Your task to perform on an android device: turn pop-ups on in chrome Image 0: 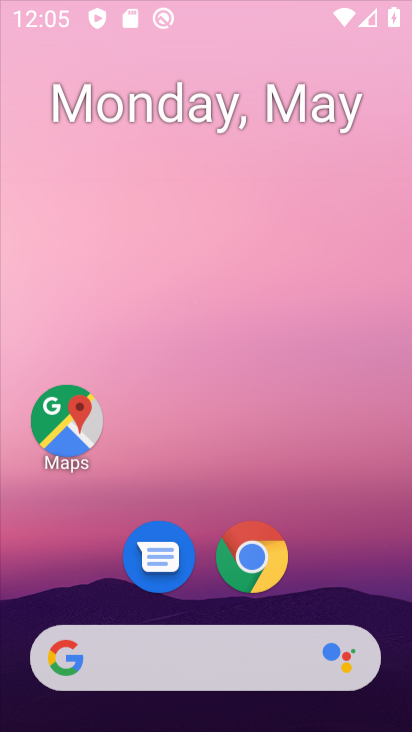
Step 0: drag from (322, 545) to (241, 42)
Your task to perform on an android device: turn pop-ups on in chrome Image 1: 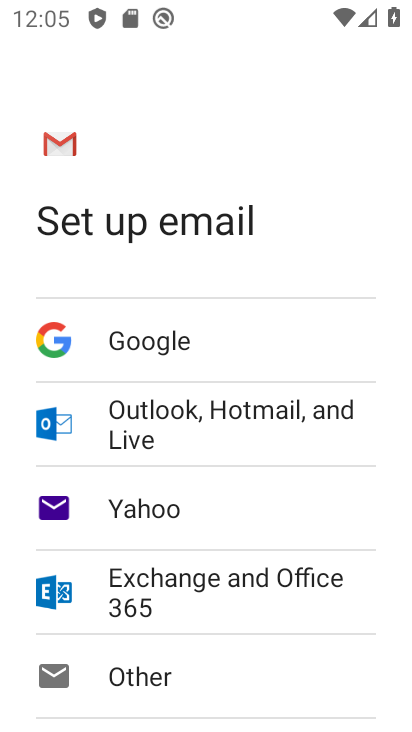
Step 1: press back button
Your task to perform on an android device: turn pop-ups on in chrome Image 2: 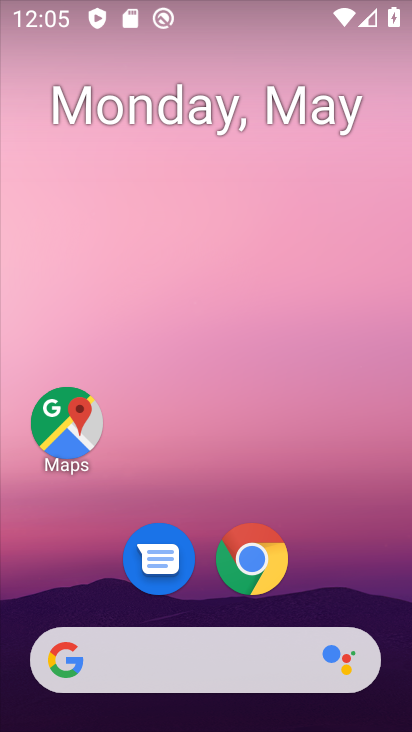
Step 2: drag from (309, 561) to (257, 28)
Your task to perform on an android device: turn pop-ups on in chrome Image 3: 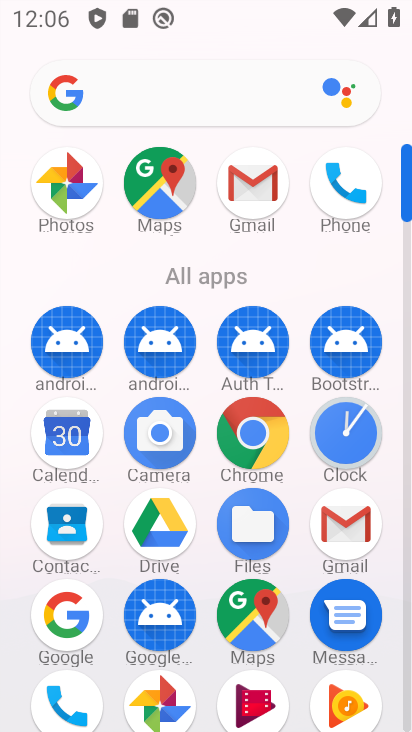
Step 3: click (249, 433)
Your task to perform on an android device: turn pop-ups on in chrome Image 4: 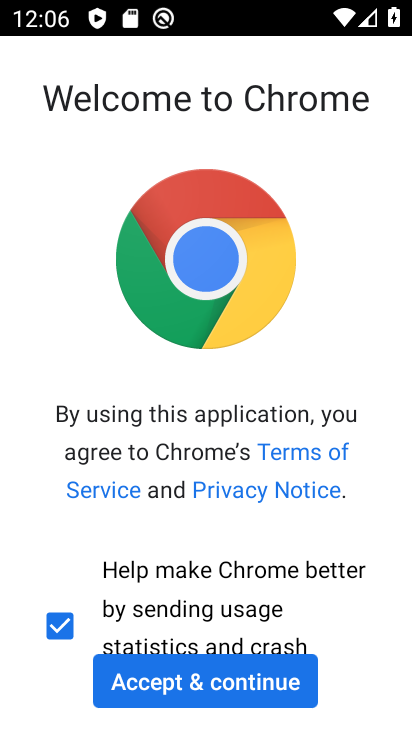
Step 4: click (237, 690)
Your task to perform on an android device: turn pop-ups on in chrome Image 5: 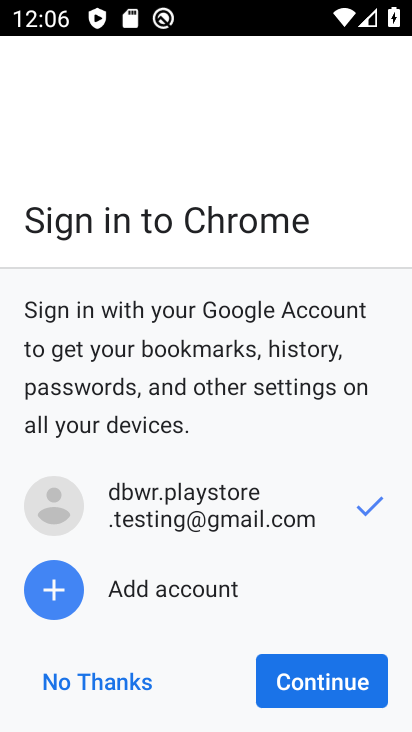
Step 5: click (304, 699)
Your task to perform on an android device: turn pop-ups on in chrome Image 6: 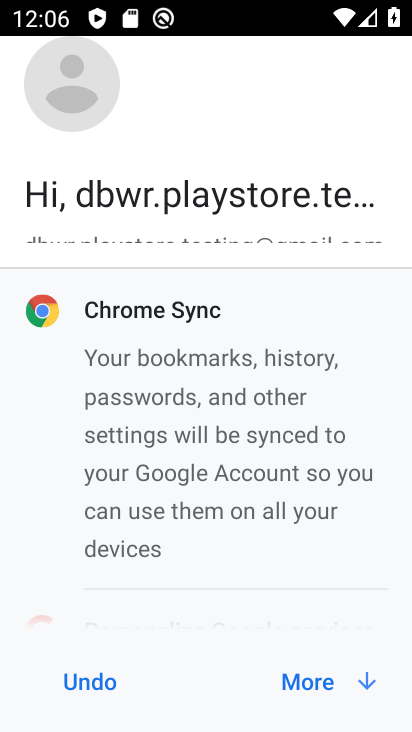
Step 6: click (304, 679)
Your task to perform on an android device: turn pop-ups on in chrome Image 7: 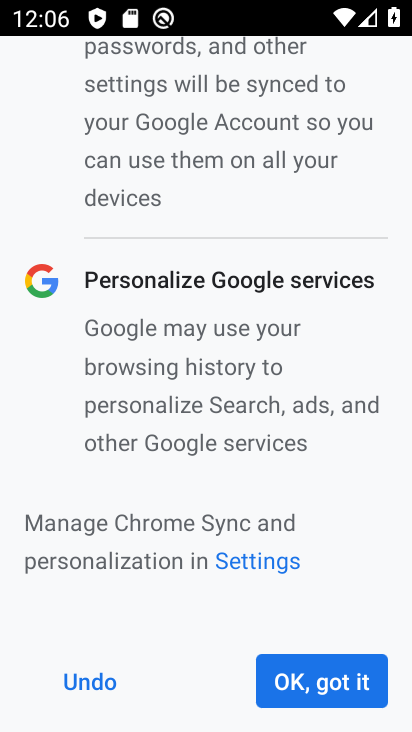
Step 7: click (304, 678)
Your task to perform on an android device: turn pop-ups on in chrome Image 8: 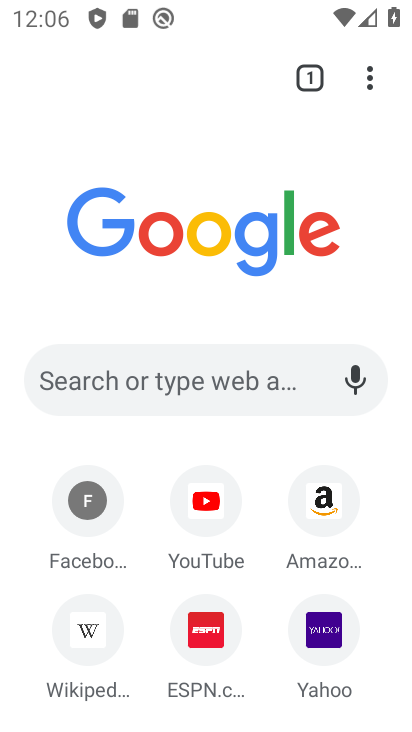
Step 8: drag from (366, 77) to (119, 562)
Your task to perform on an android device: turn pop-ups on in chrome Image 9: 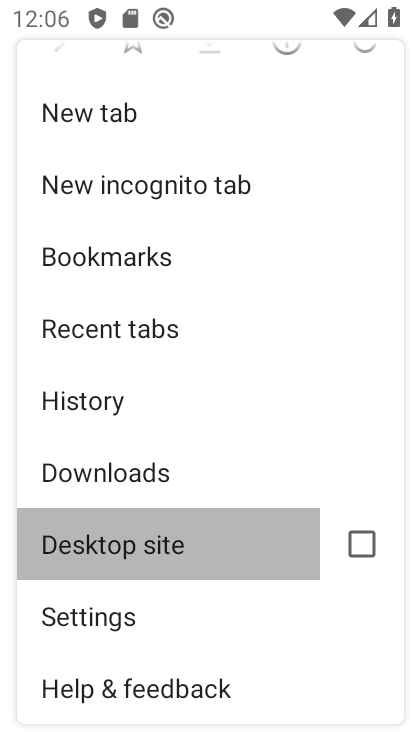
Step 9: click (112, 595)
Your task to perform on an android device: turn pop-ups on in chrome Image 10: 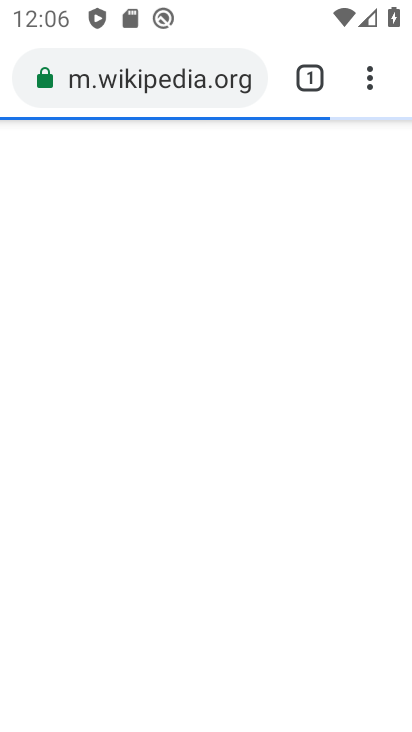
Step 10: click (182, 362)
Your task to perform on an android device: turn pop-ups on in chrome Image 11: 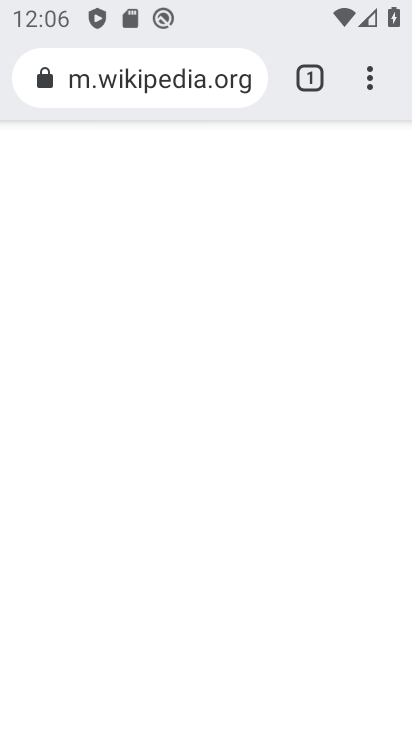
Step 11: drag from (368, 74) to (114, 597)
Your task to perform on an android device: turn pop-ups on in chrome Image 12: 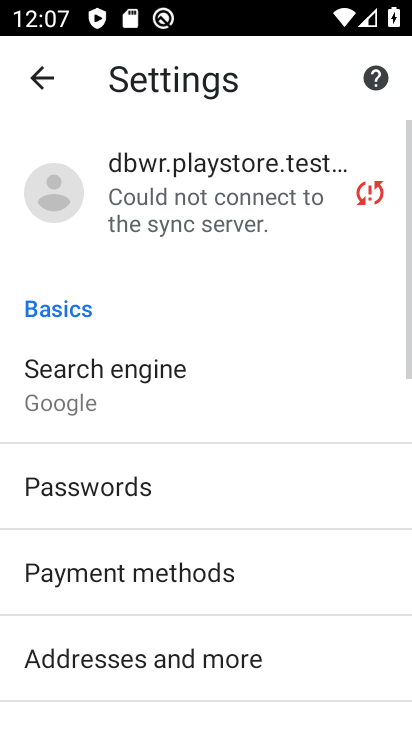
Step 12: drag from (238, 575) to (260, 207)
Your task to perform on an android device: turn pop-ups on in chrome Image 13: 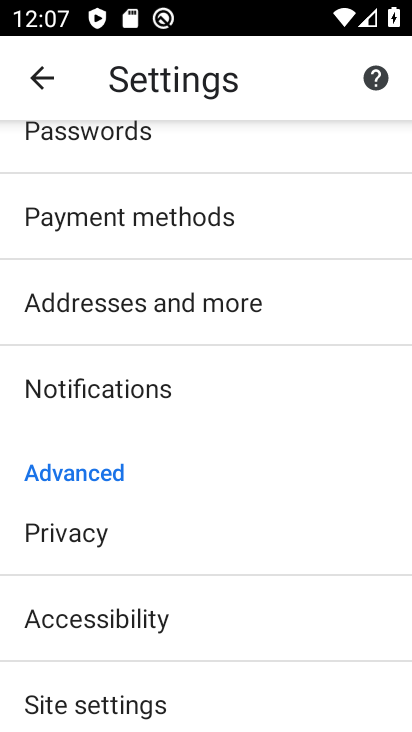
Step 13: drag from (130, 627) to (198, 254)
Your task to perform on an android device: turn pop-ups on in chrome Image 14: 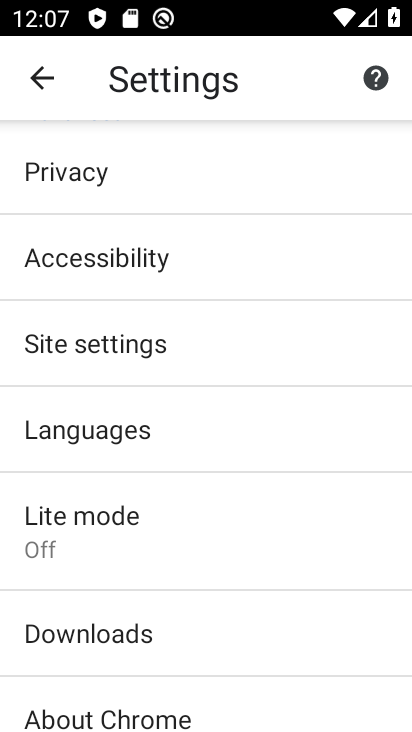
Step 14: click (126, 342)
Your task to perform on an android device: turn pop-ups on in chrome Image 15: 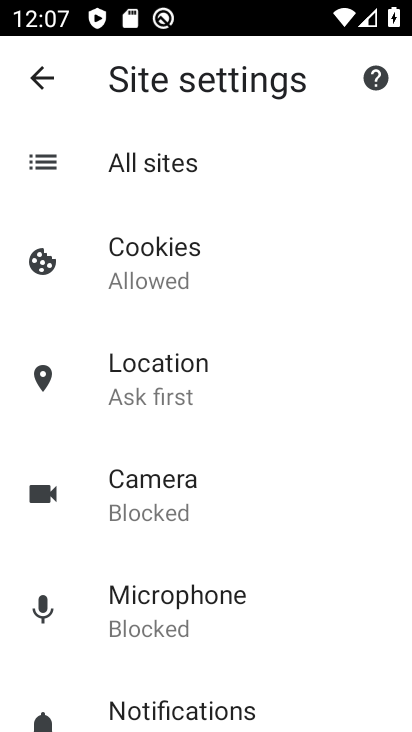
Step 15: drag from (212, 582) to (212, 266)
Your task to perform on an android device: turn pop-ups on in chrome Image 16: 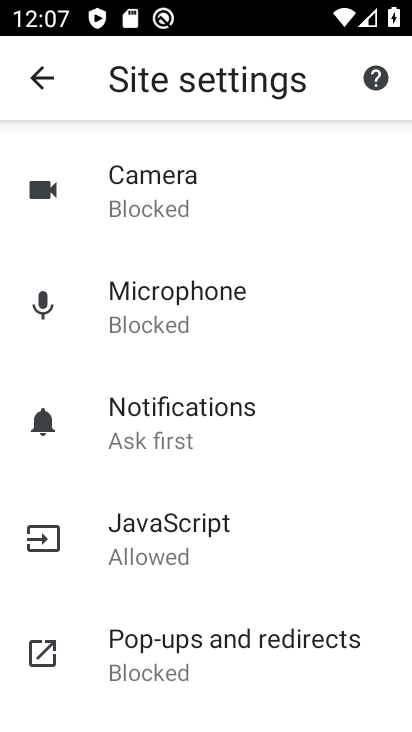
Step 16: drag from (198, 585) to (239, 284)
Your task to perform on an android device: turn pop-ups on in chrome Image 17: 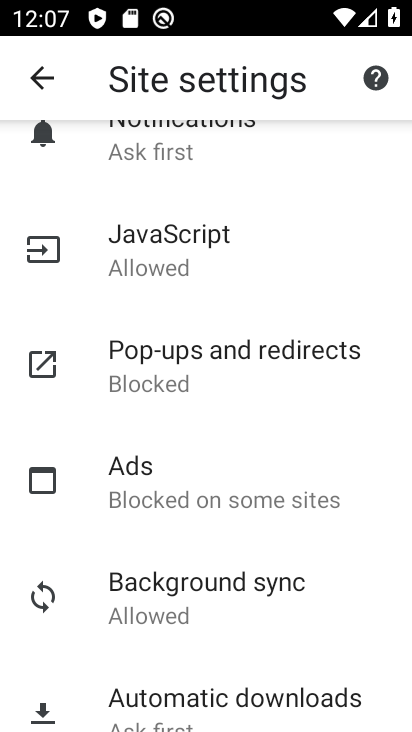
Step 17: click (184, 367)
Your task to perform on an android device: turn pop-ups on in chrome Image 18: 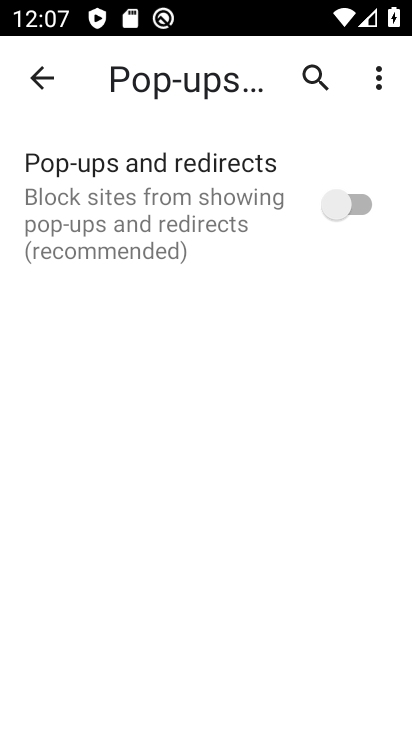
Step 18: click (354, 189)
Your task to perform on an android device: turn pop-ups on in chrome Image 19: 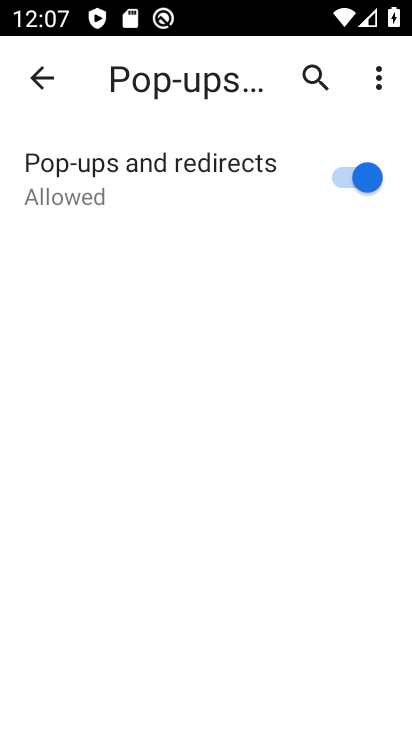
Step 19: task complete